Your task to perform on an android device: show emergency info Image 0: 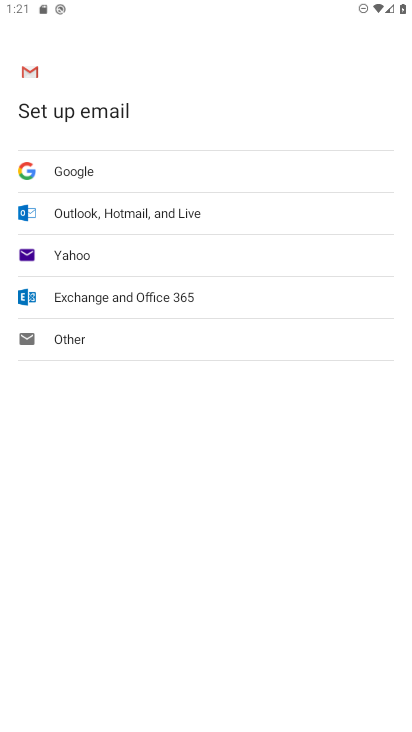
Step 0: press home button
Your task to perform on an android device: show emergency info Image 1: 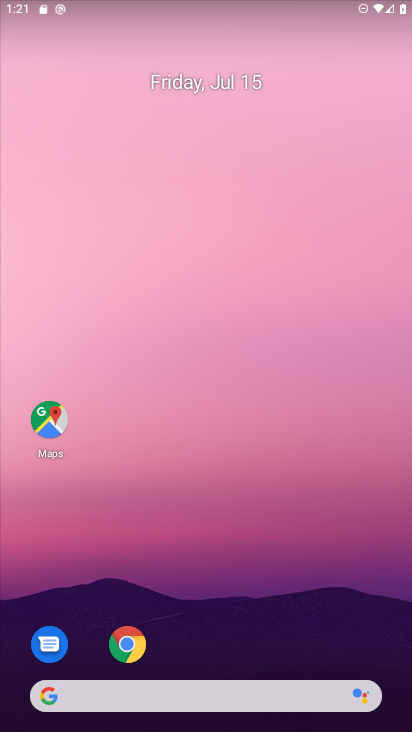
Step 1: drag from (396, 712) to (332, 6)
Your task to perform on an android device: show emergency info Image 2: 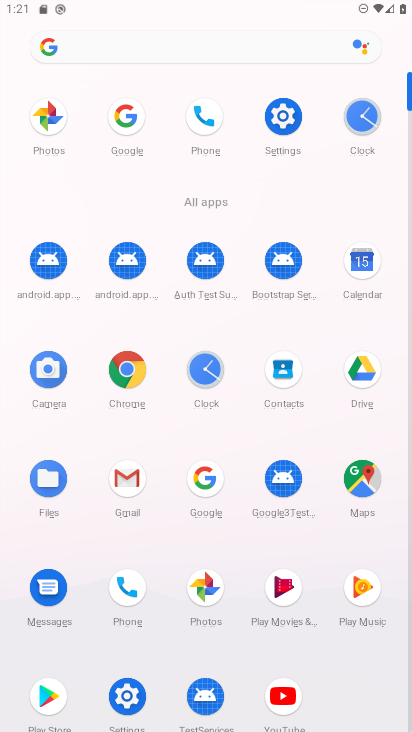
Step 2: click (284, 113)
Your task to perform on an android device: show emergency info Image 3: 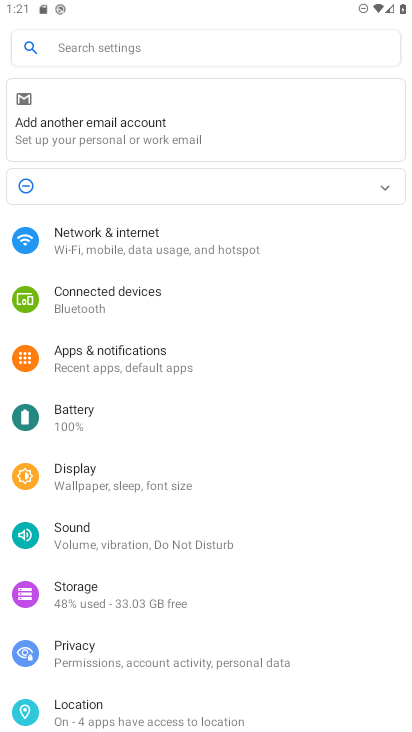
Step 3: drag from (190, 657) to (184, 160)
Your task to perform on an android device: show emergency info Image 4: 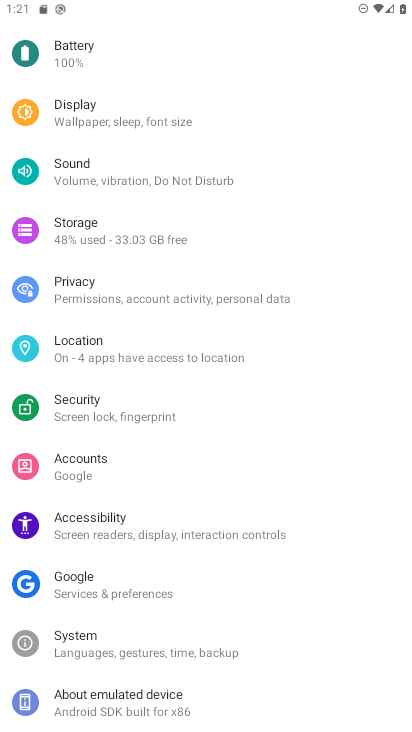
Step 4: click (81, 699)
Your task to perform on an android device: show emergency info Image 5: 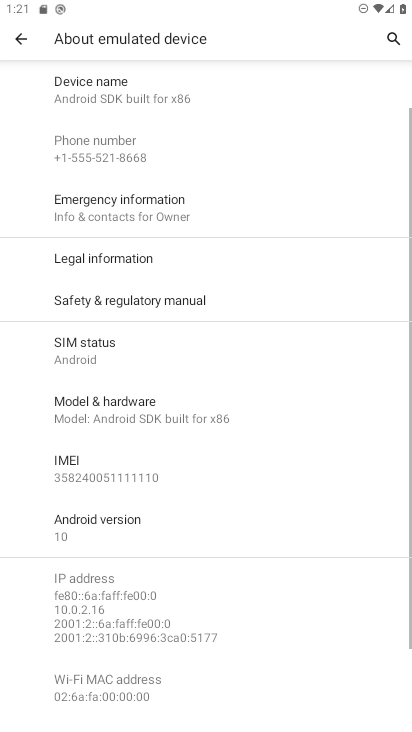
Step 5: drag from (282, 583) to (247, 169)
Your task to perform on an android device: show emergency info Image 6: 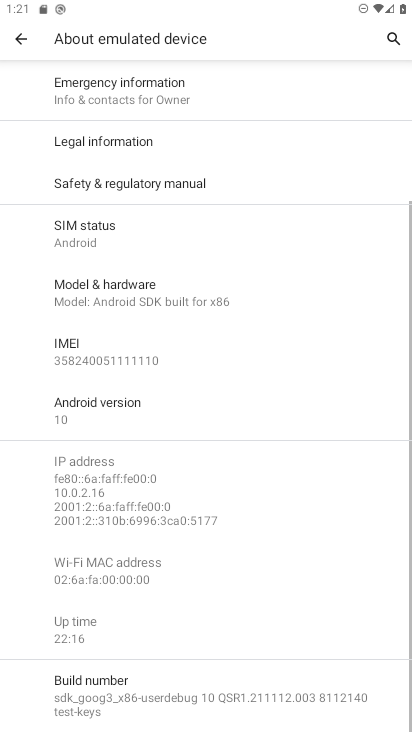
Step 6: drag from (257, 124) to (256, 581)
Your task to perform on an android device: show emergency info Image 7: 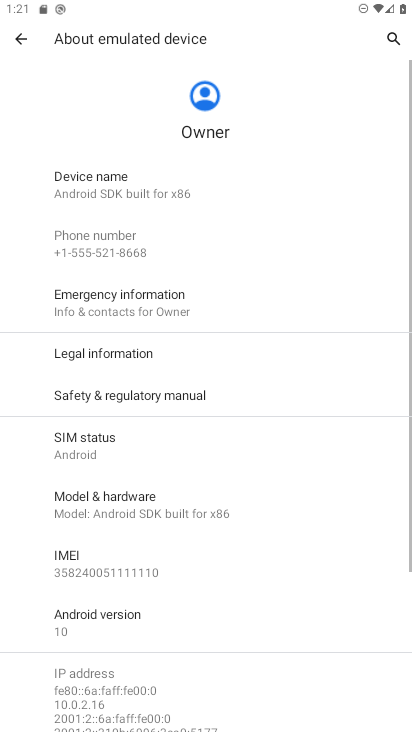
Step 7: click (133, 292)
Your task to perform on an android device: show emergency info Image 8: 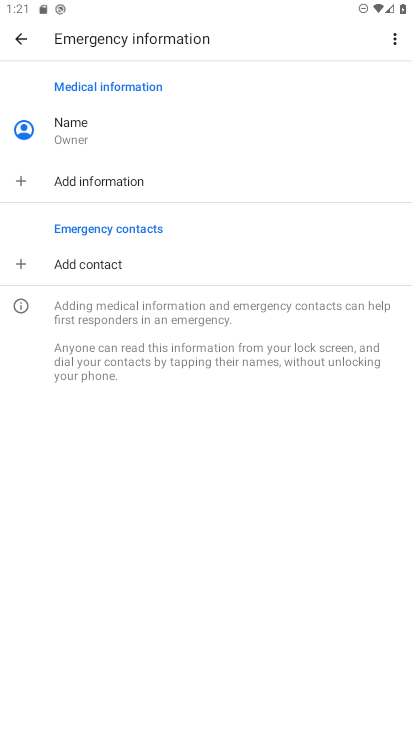
Step 8: task complete